Your task to perform on an android device: Open accessibility settings Image 0: 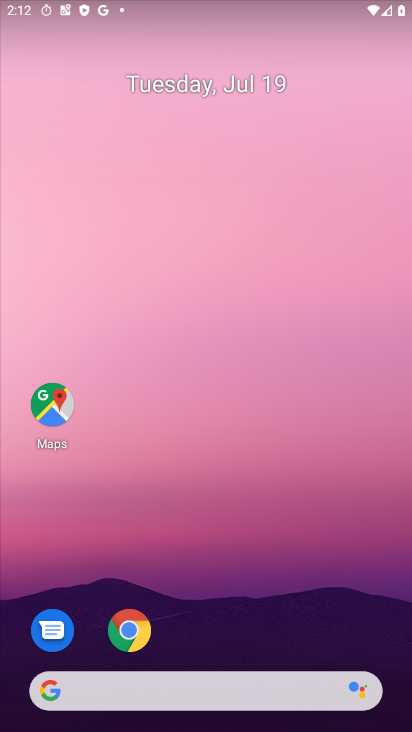
Step 0: drag from (315, 610) to (339, 267)
Your task to perform on an android device: Open accessibility settings Image 1: 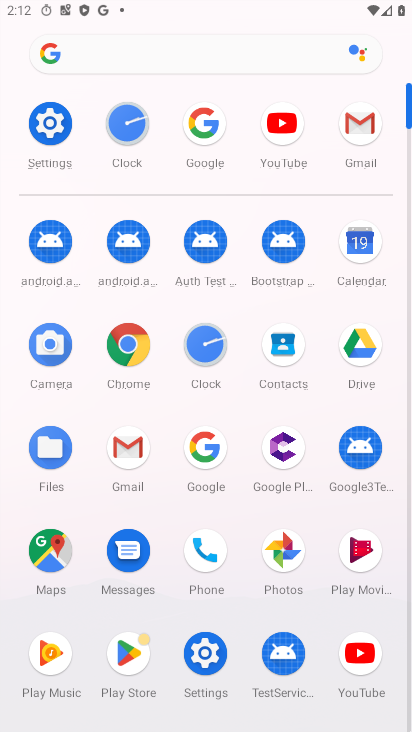
Step 1: click (63, 118)
Your task to perform on an android device: Open accessibility settings Image 2: 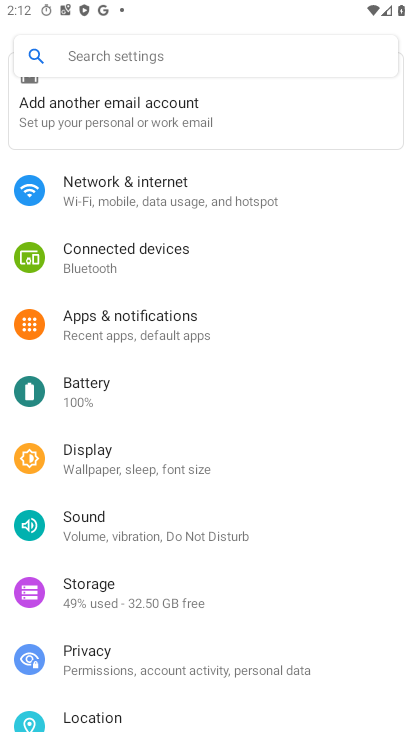
Step 2: drag from (143, 689) to (153, 237)
Your task to perform on an android device: Open accessibility settings Image 3: 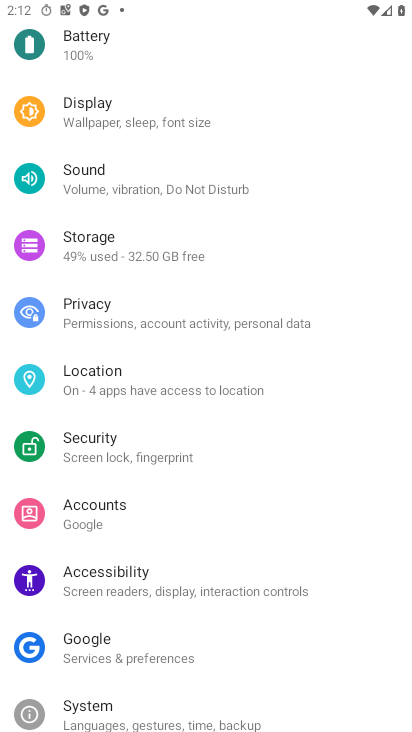
Step 3: click (243, 595)
Your task to perform on an android device: Open accessibility settings Image 4: 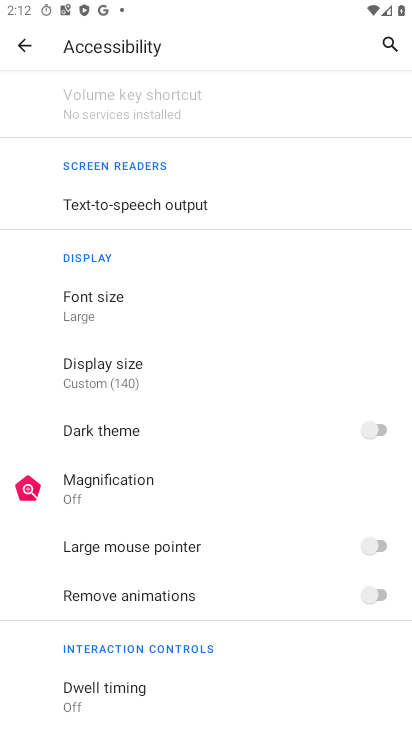
Step 4: task complete